Your task to perform on an android device: see sites visited before in the chrome app Image 0: 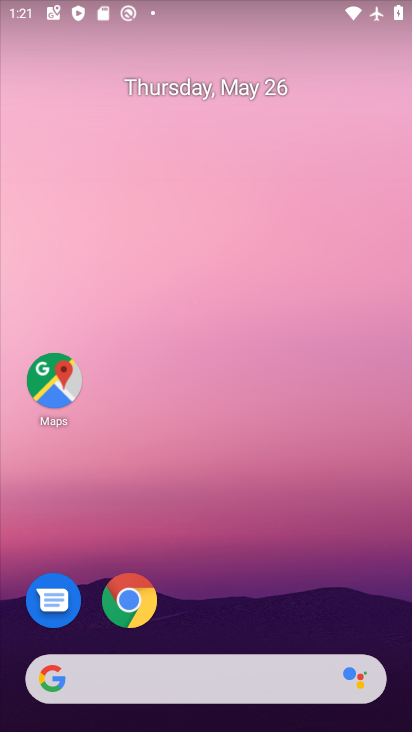
Step 0: drag from (274, 568) to (256, 133)
Your task to perform on an android device: see sites visited before in the chrome app Image 1: 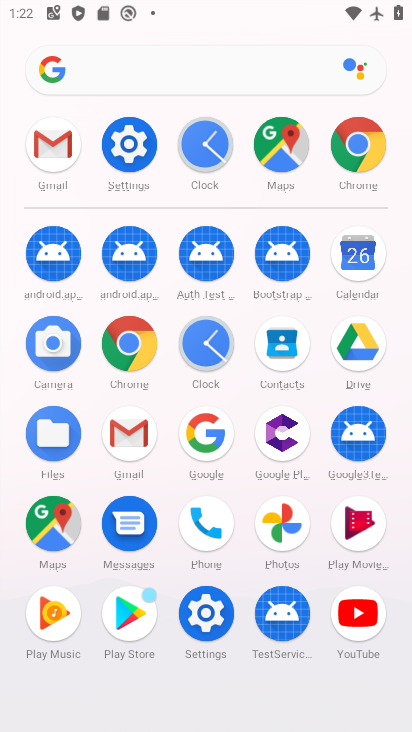
Step 1: click (125, 342)
Your task to perform on an android device: see sites visited before in the chrome app Image 2: 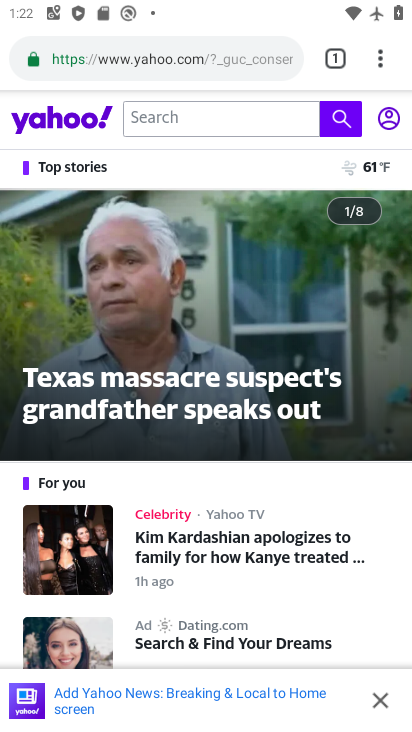
Step 2: task complete